Your task to perform on an android device: Clear the cart on target.com. Add asus rog to the cart on target.com Image 0: 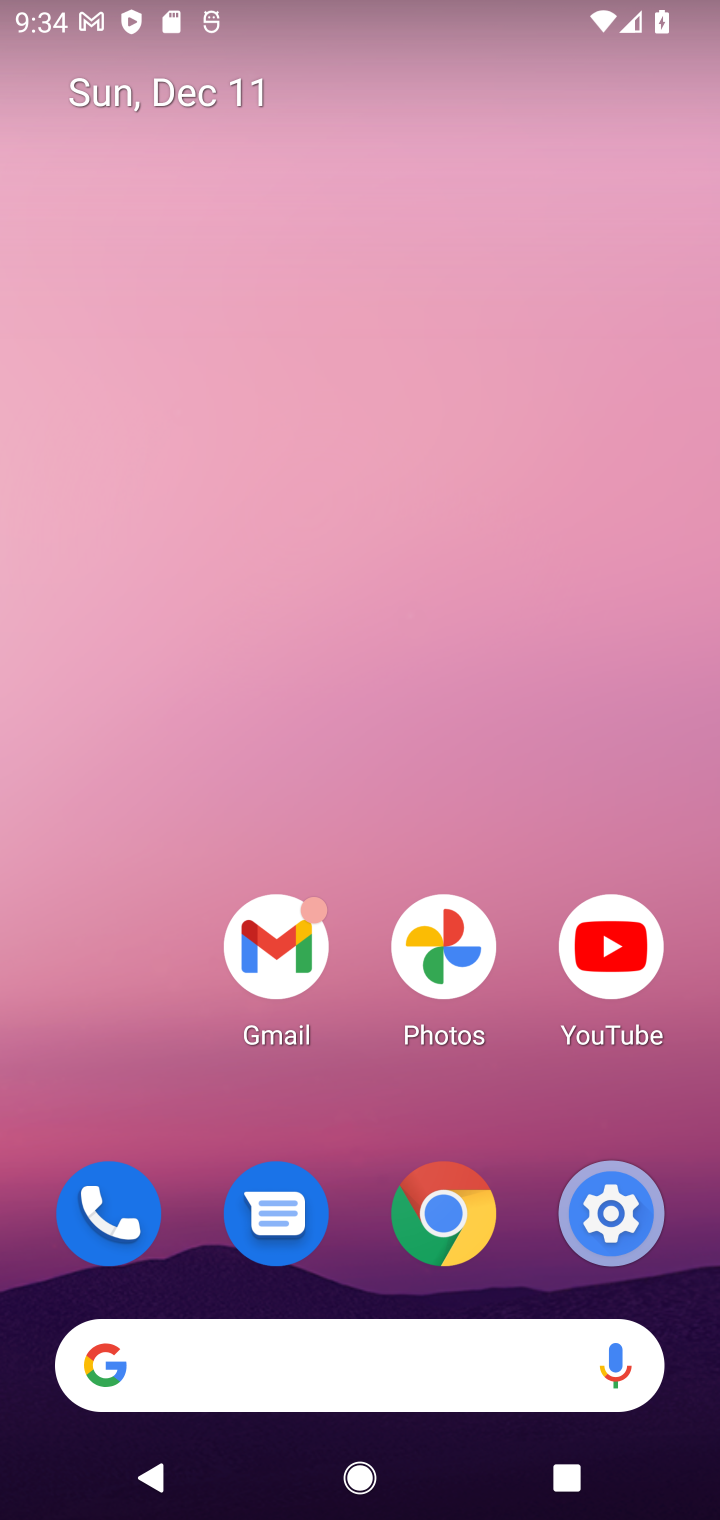
Step 0: click (465, 1387)
Your task to perform on an android device: Clear the cart on target.com. Add asus rog to the cart on target.com Image 1: 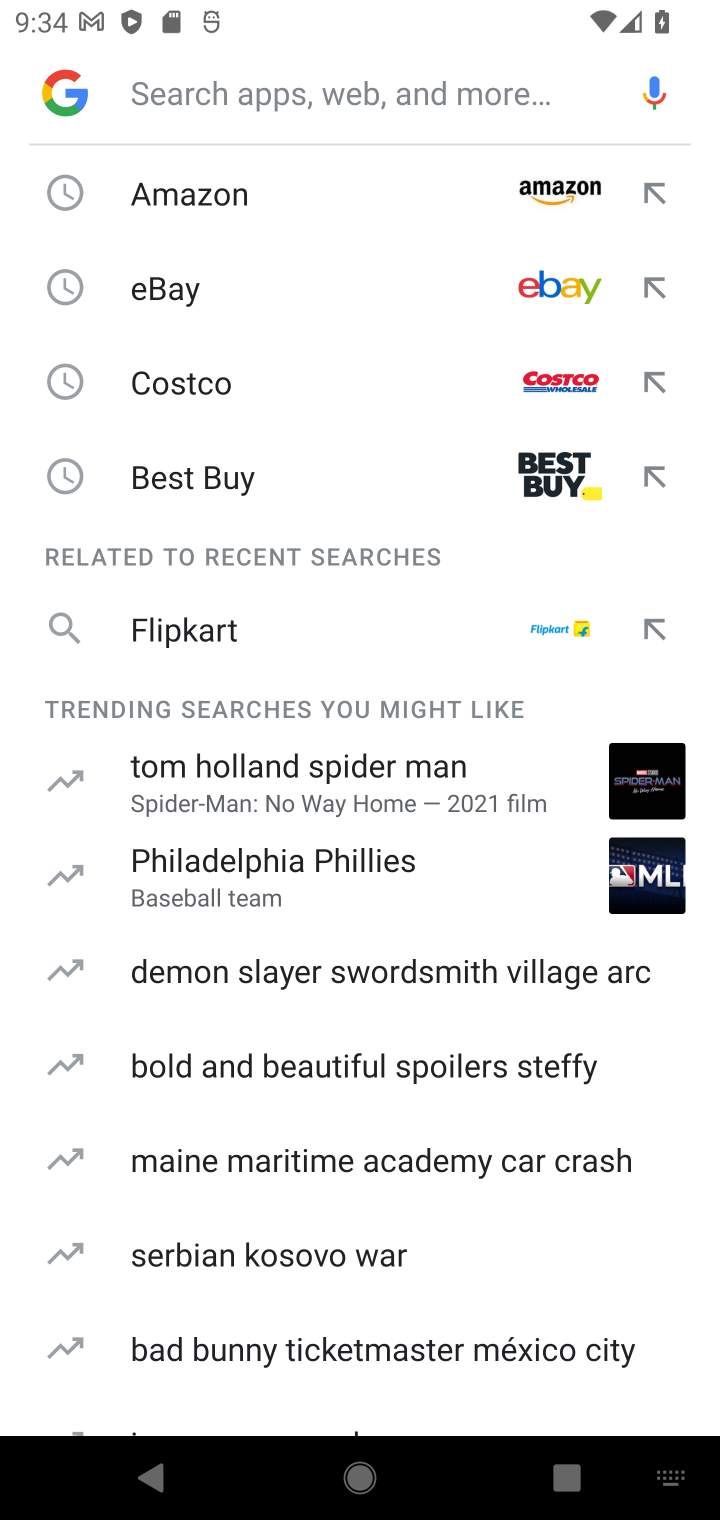
Step 1: type "target.com"
Your task to perform on an android device: Clear the cart on target.com. Add asus rog to the cart on target.com Image 2: 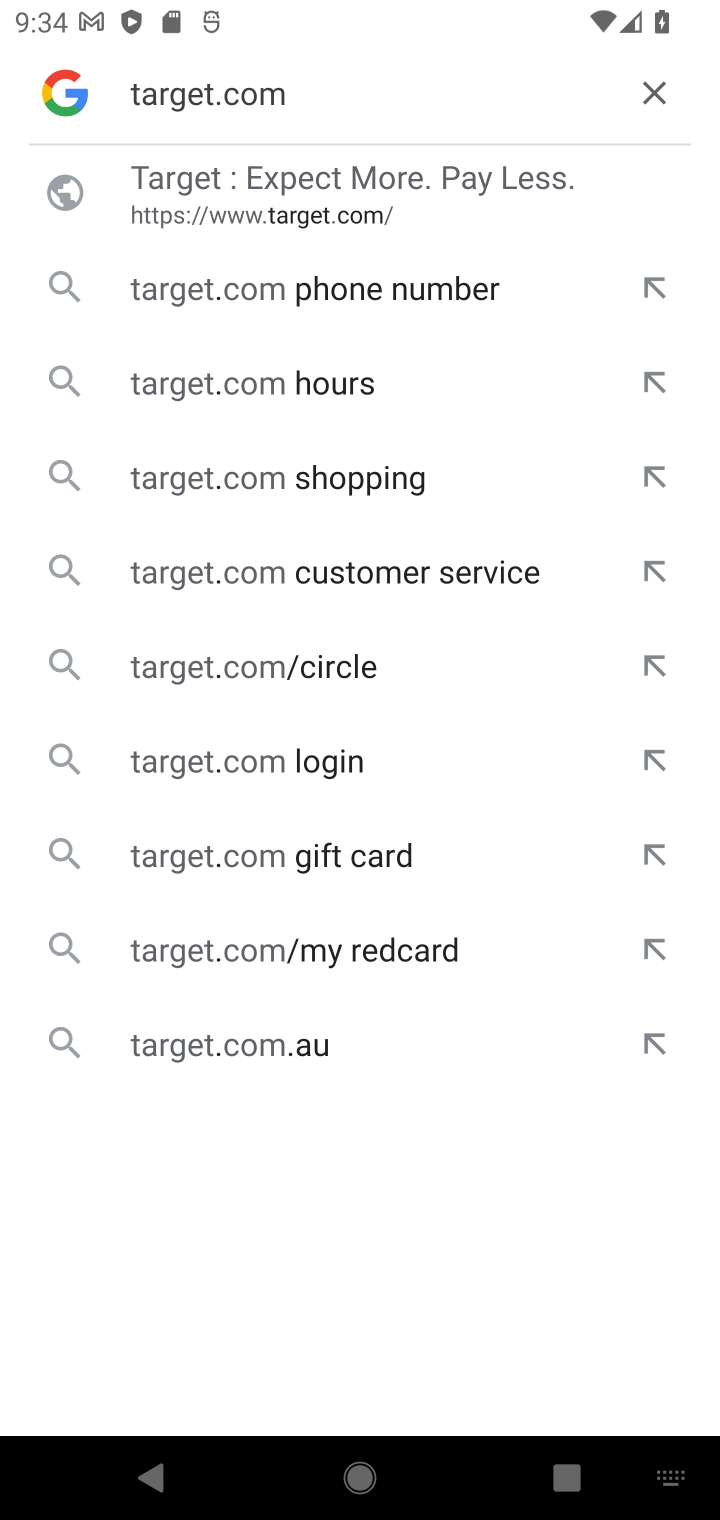
Step 2: click (338, 215)
Your task to perform on an android device: Clear the cart on target.com. Add asus rog to the cart on target.com Image 3: 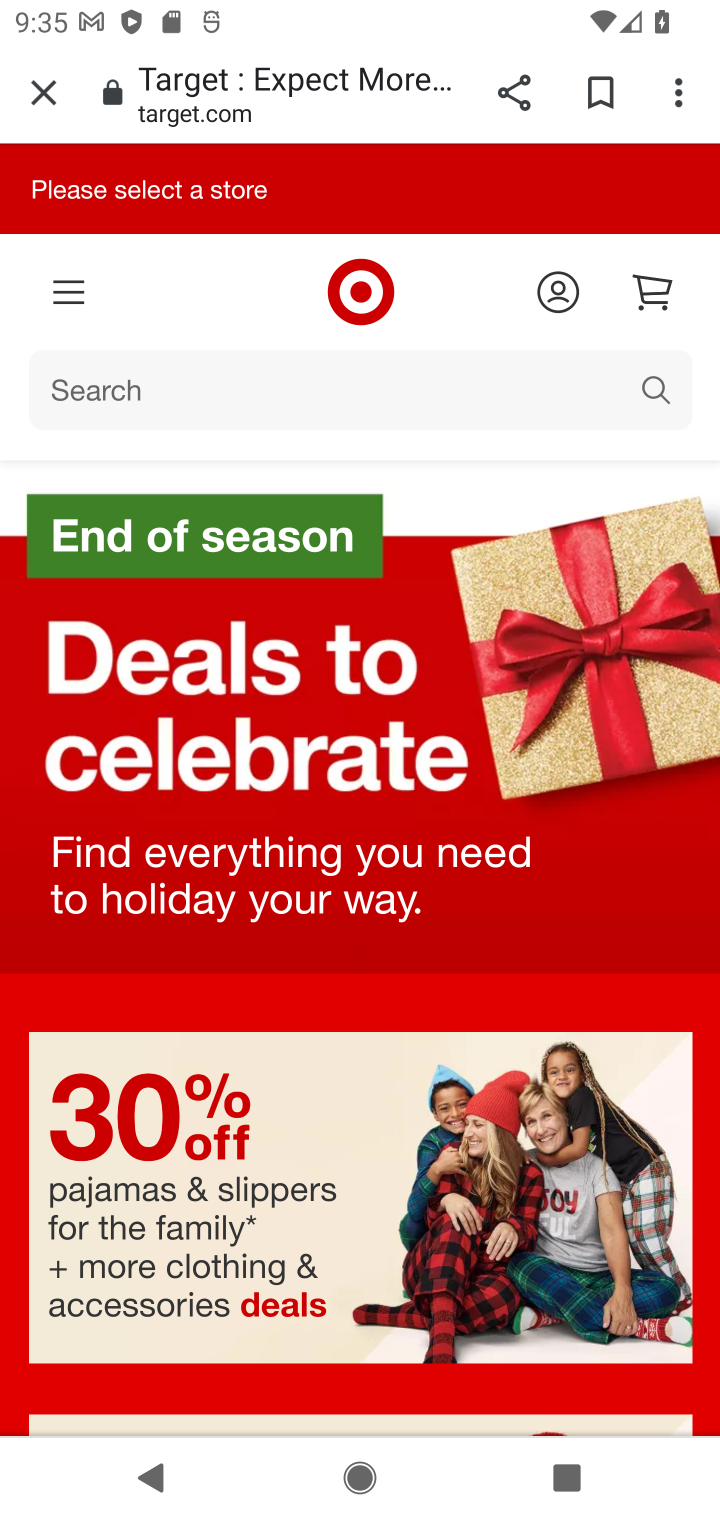
Step 3: click (321, 415)
Your task to perform on an android device: Clear the cart on target.com. Add asus rog to the cart on target.com Image 4: 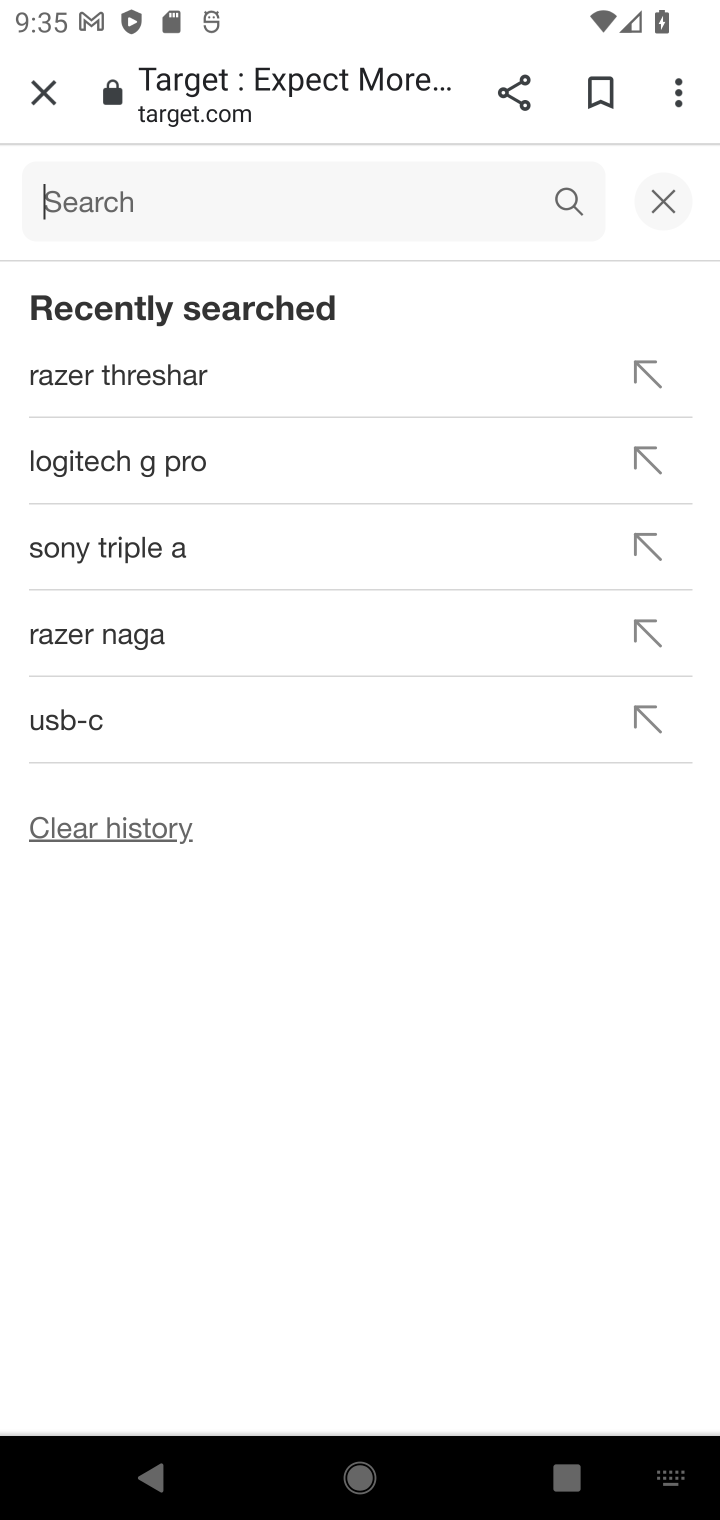
Step 4: type "target"
Your task to perform on an android device: Clear the cart on target.com. Add asus rog to the cart on target.com Image 5: 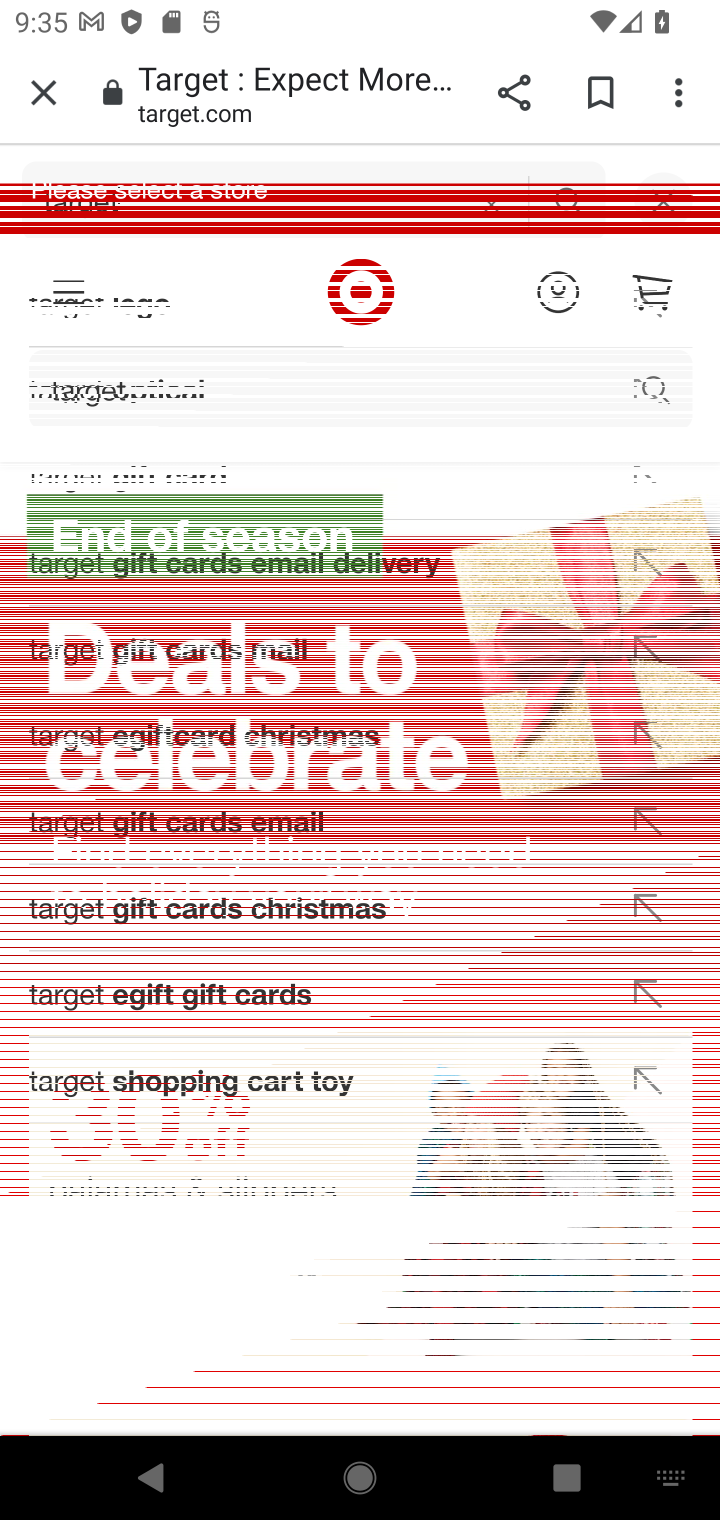
Step 5: click (495, 205)
Your task to perform on an android device: Clear the cart on target.com. Add asus rog to the cart on target.com Image 6: 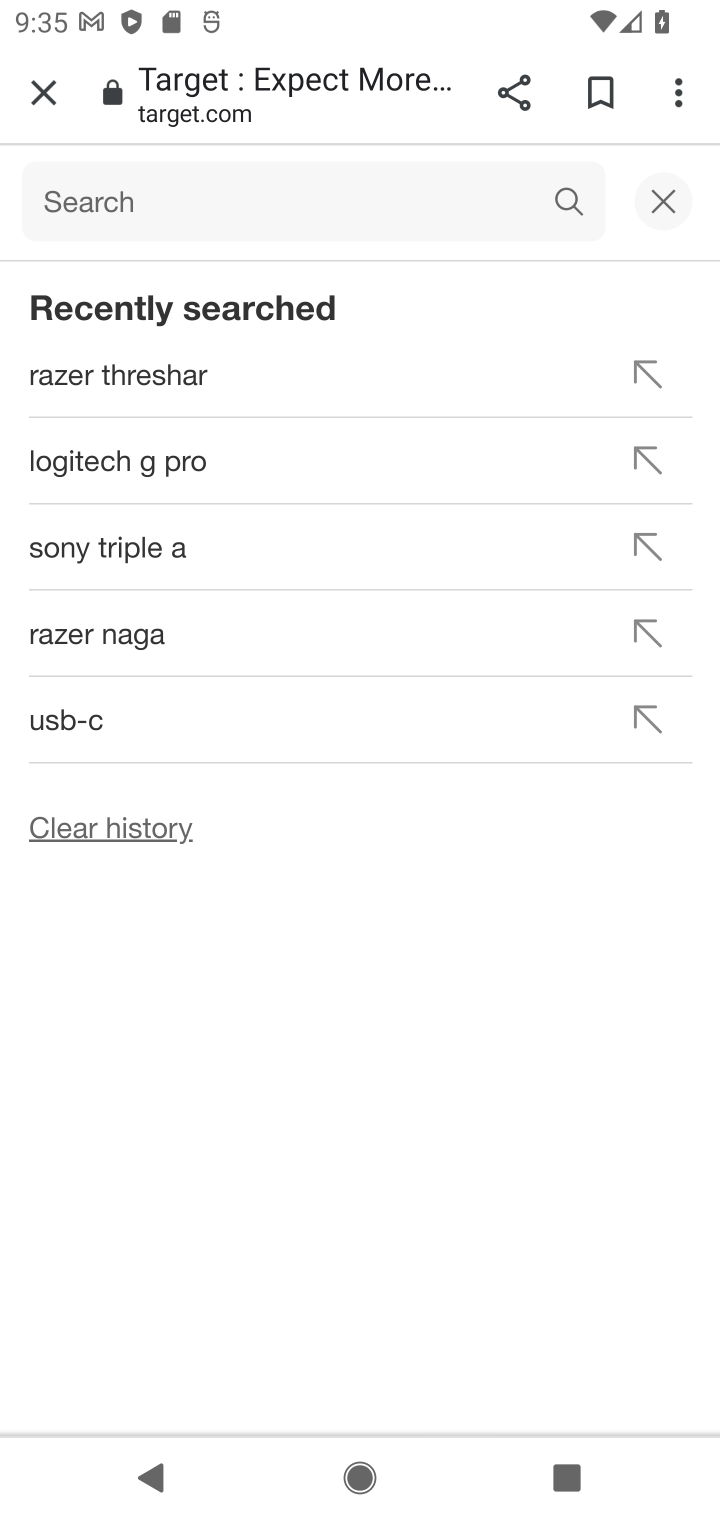
Step 6: type "asus rog"
Your task to perform on an android device: Clear the cart on target.com. Add asus rog to the cart on target.com Image 7: 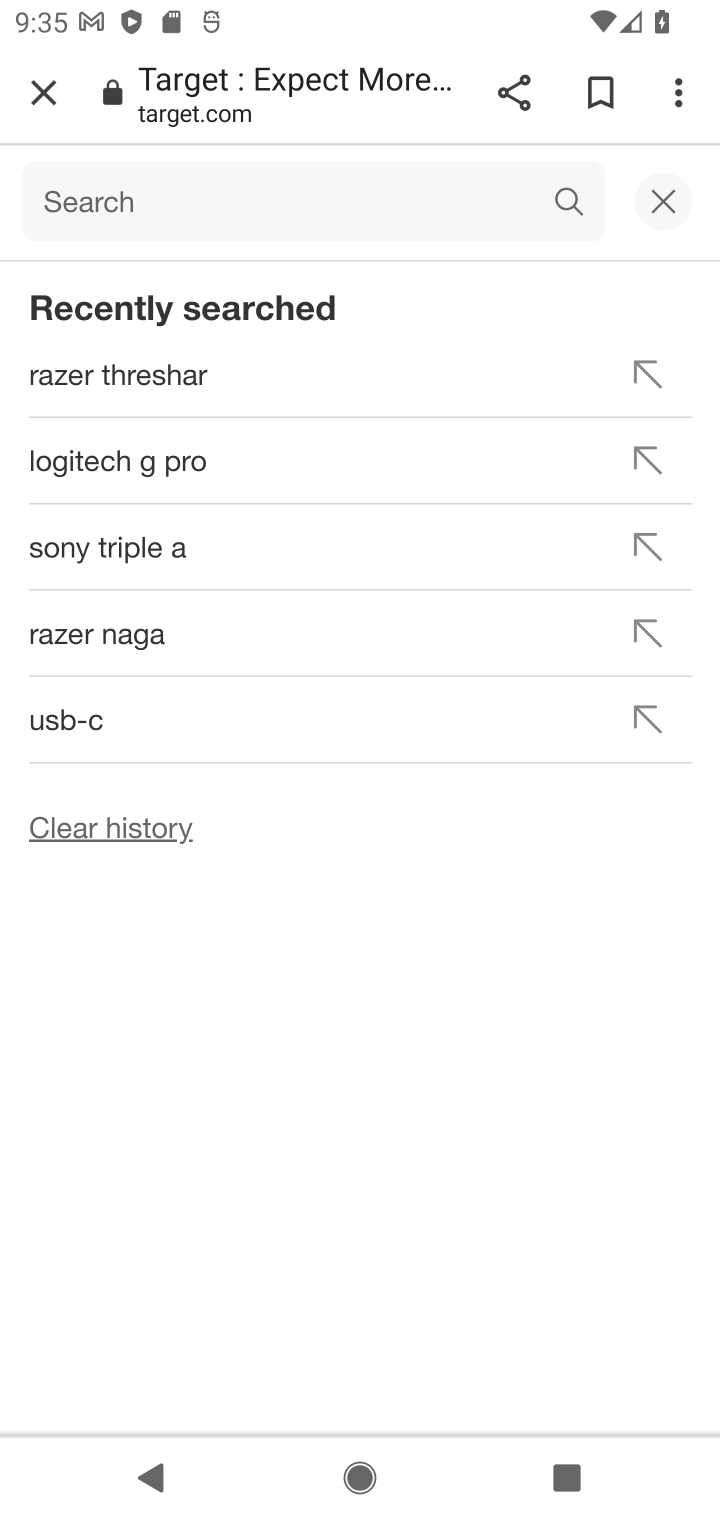
Step 7: click (294, 237)
Your task to perform on an android device: Clear the cart on target.com. Add asus rog to the cart on target.com Image 8: 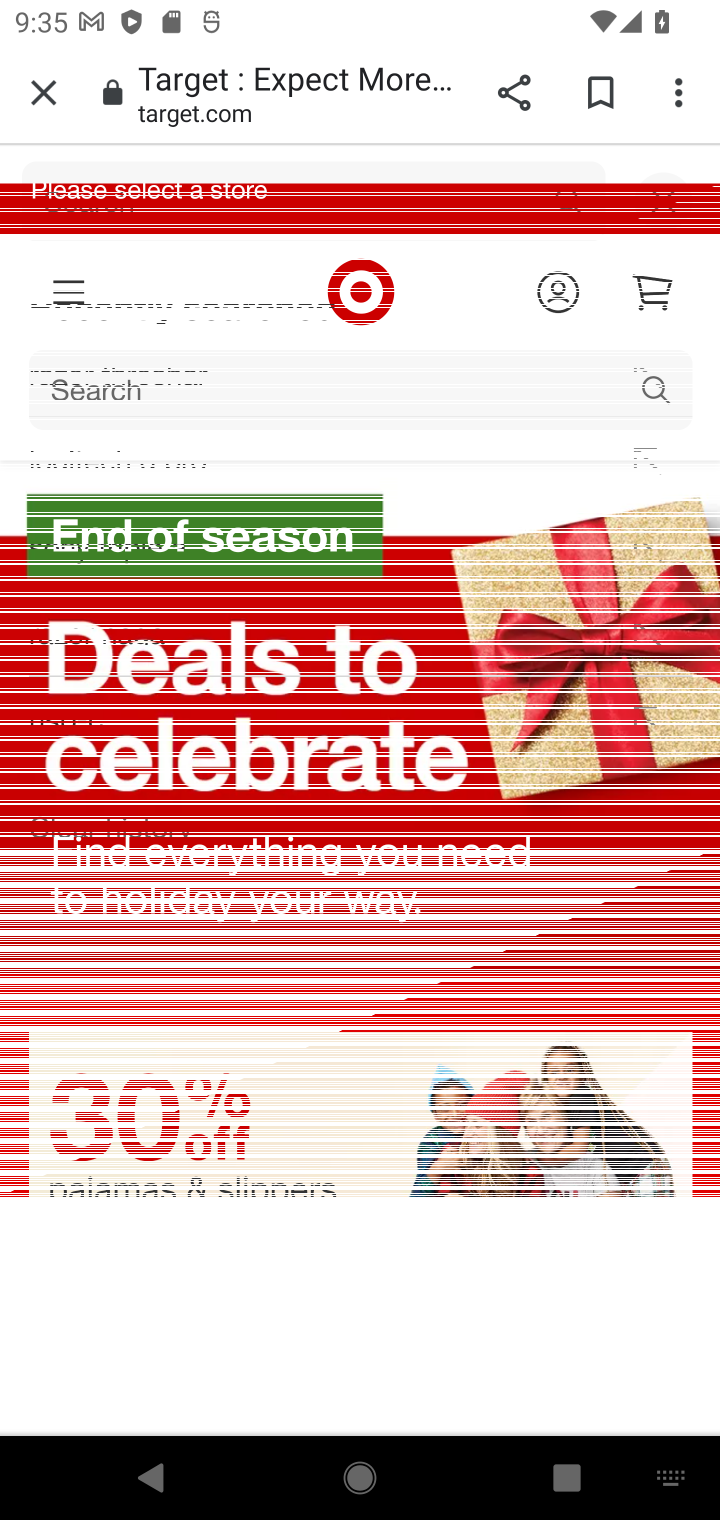
Step 8: type "asus rog"
Your task to perform on an android device: Clear the cart on target.com. Add asus rog to the cart on target.com Image 9: 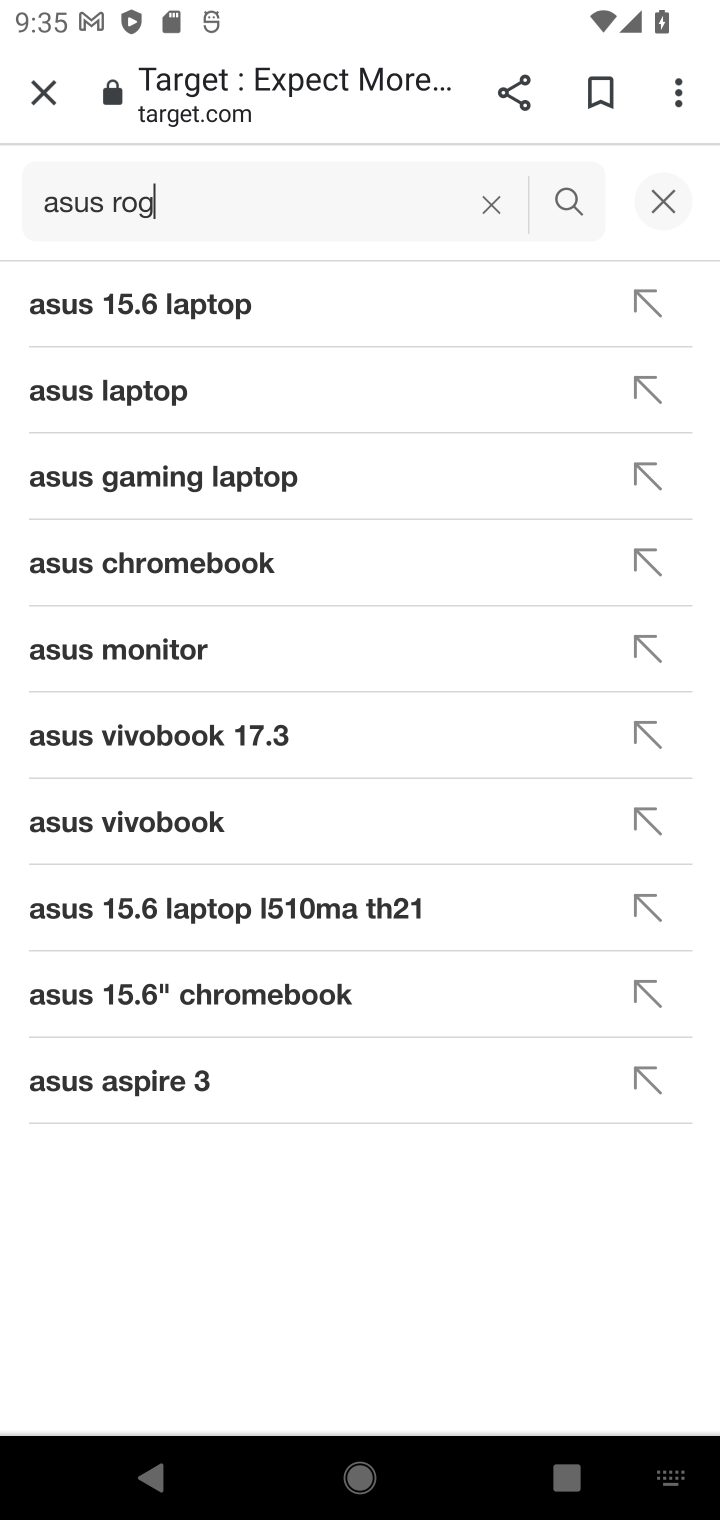
Step 9: click (576, 200)
Your task to perform on an android device: Clear the cart on target.com. Add asus rog to the cart on target.com Image 10: 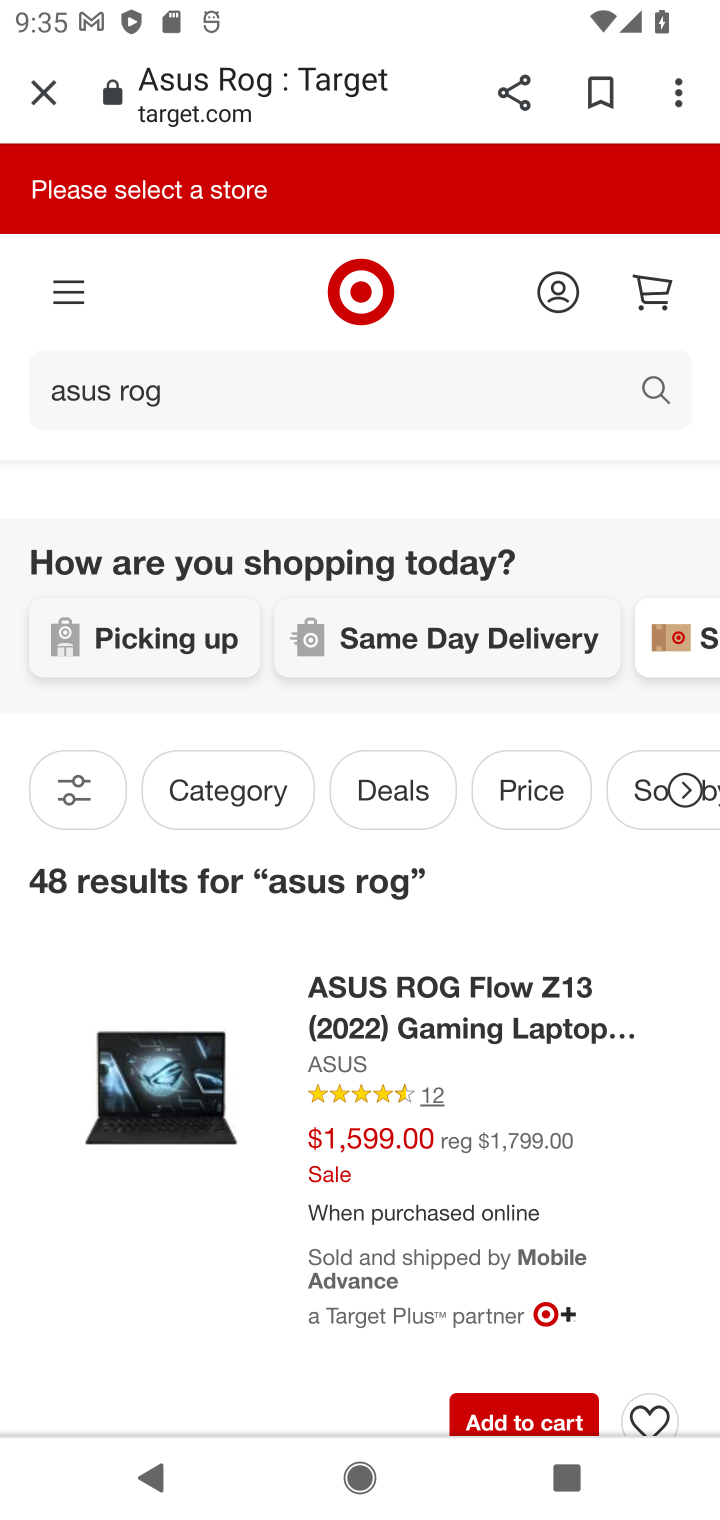
Step 10: click (514, 1419)
Your task to perform on an android device: Clear the cart on target.com. Add asus rog to the cart on target.com Image 11: 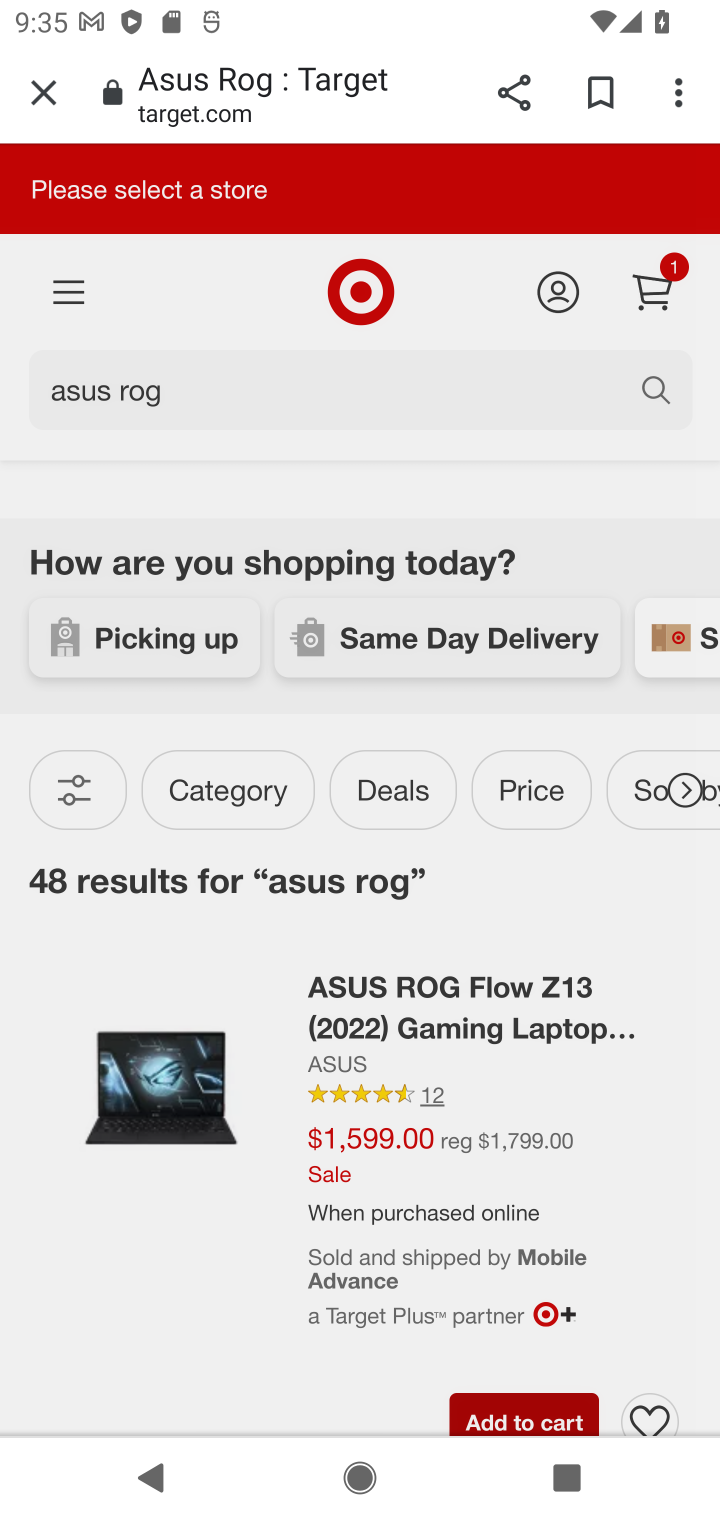
Step 11: task complete